Your task to perform on an android device: install app "Adobe Express: Graphic Design" Image 0: 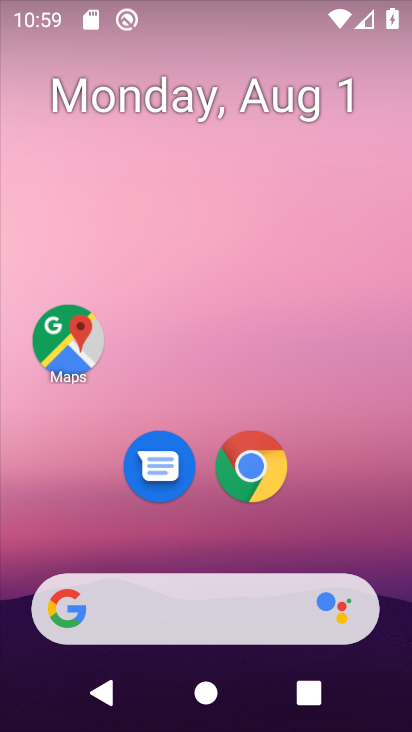
Step 0: drag from (234, 658) to (278, 88)
Your task to perform on an android device: install app "Adobe Express: Graphic Design" Image 1: 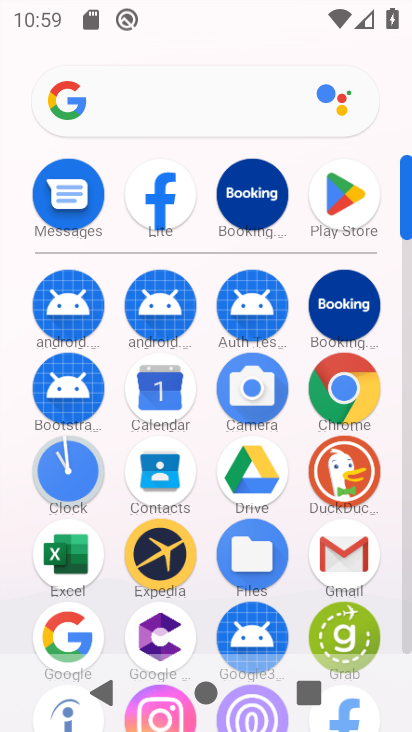
Step 1: click (344, 195)
Your task to perform on an android device: install app "Adobe Express: Graphic Design" Image 2: 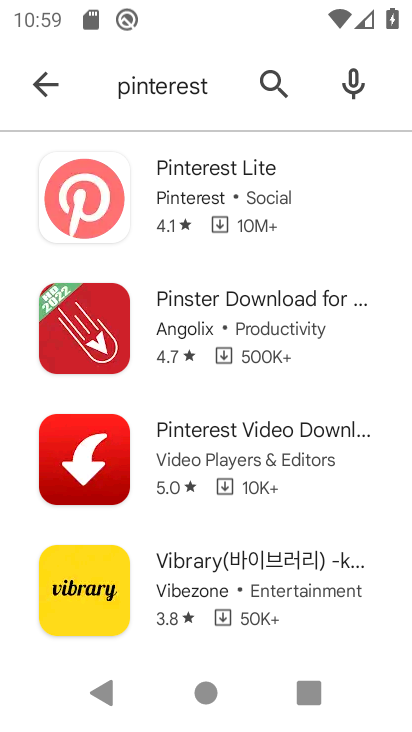
Step 2: click (271, 83)
Your task to perform on an android device: install app "Adobe Express: Graphic Design" Image 3: 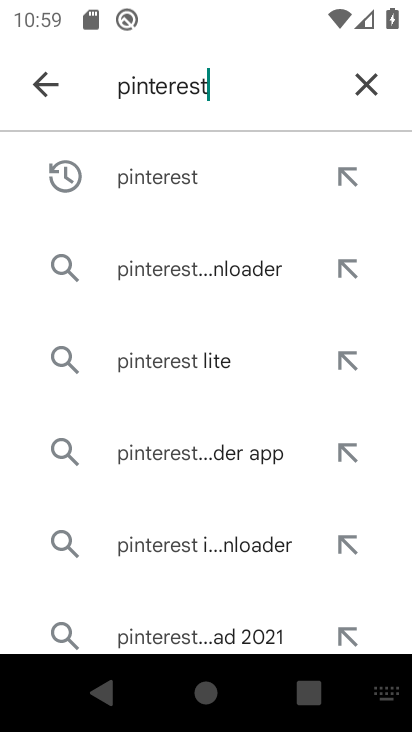
Step 3: click (370, 83)
Your task to perform on an android device: install app "Adobe Express: Graphic Design" Image 4: 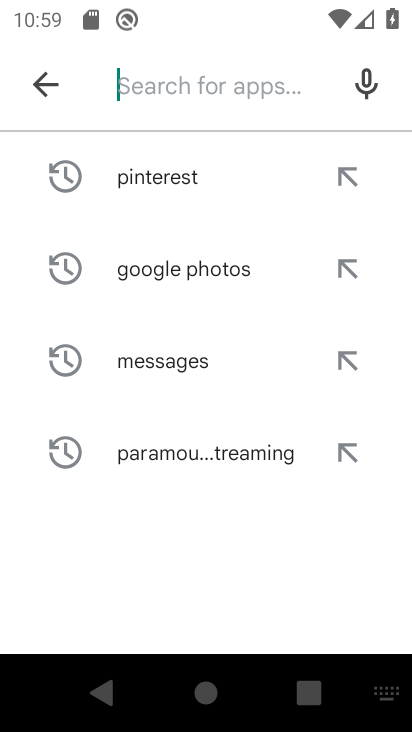
Step 4: type "Adobe Express: Graphic Design"
Your task to perform on an android device: install app "Adobe Express: Graphic Design" Image 5: 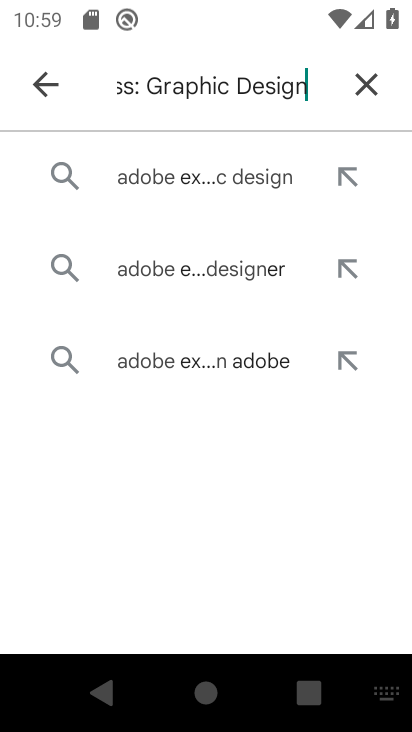
Step 5: click (165, 180)
Your task to perform on an android device: install app "Adobe Express: Graphic Design" Image 6: 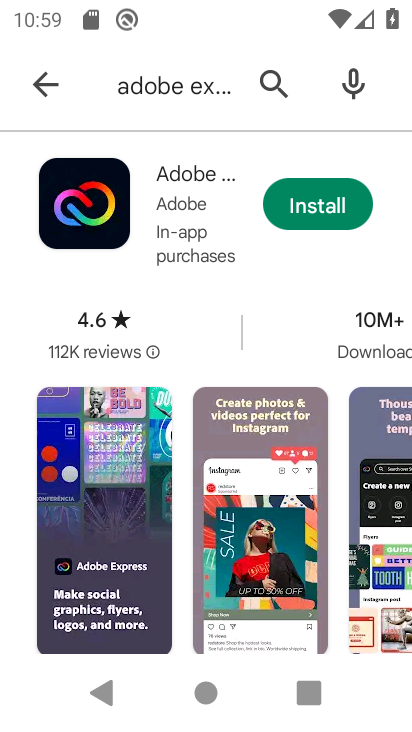
Step 6: click (324, 206)
Your task to perform on an android device: install app "Adobe Express: Graphic Design" Image 7: 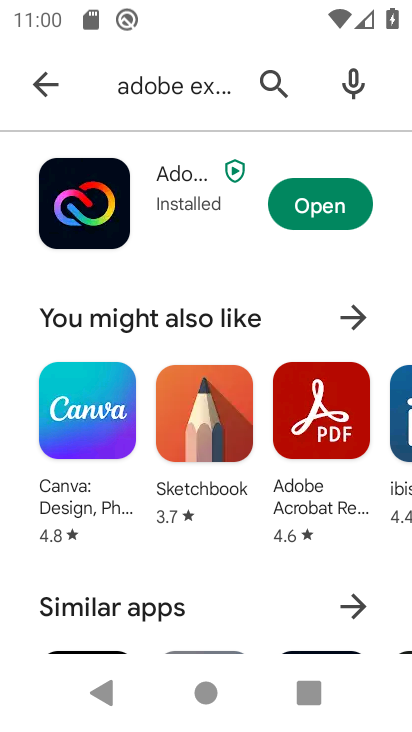
Step 7: task complete